Your task to perform on an android device: turn on wifi Image 0: 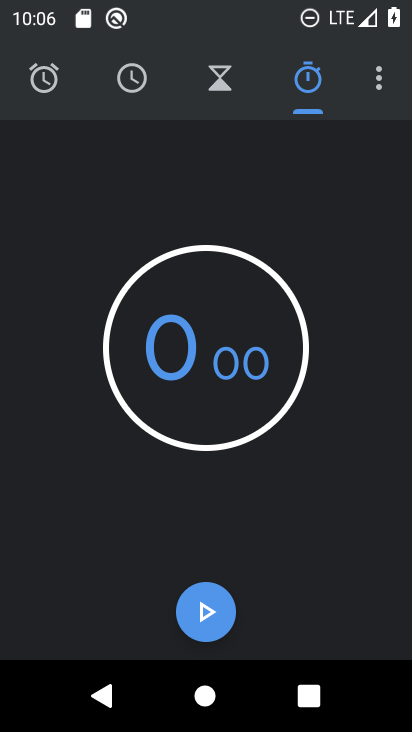
Step 0: press home button
Your task to perform on an android device: turn on wifi Image 1: 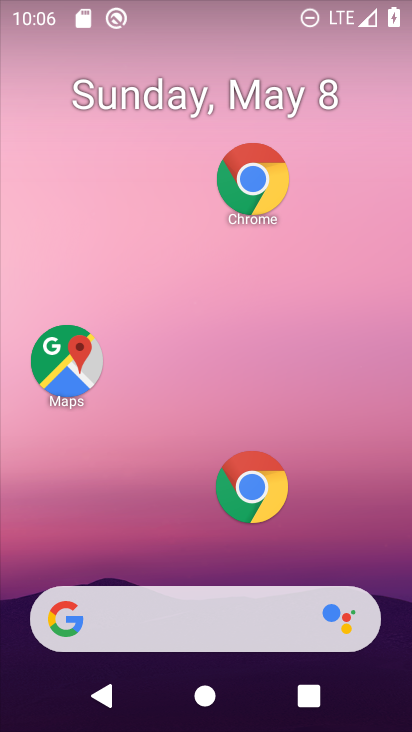
Step 1: drag from (164, 523) to (197, 25)
Your task to perform on an android device: turn on wifi Image 2: 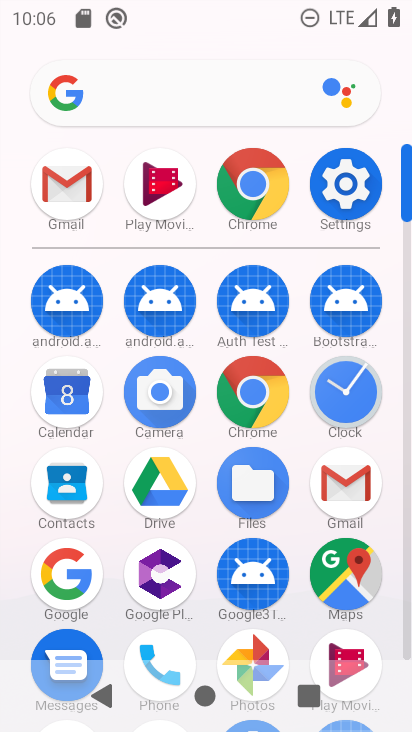
Step 2: click (358, 189)
Your task to perform on an android device: turn on wifi Image 3: 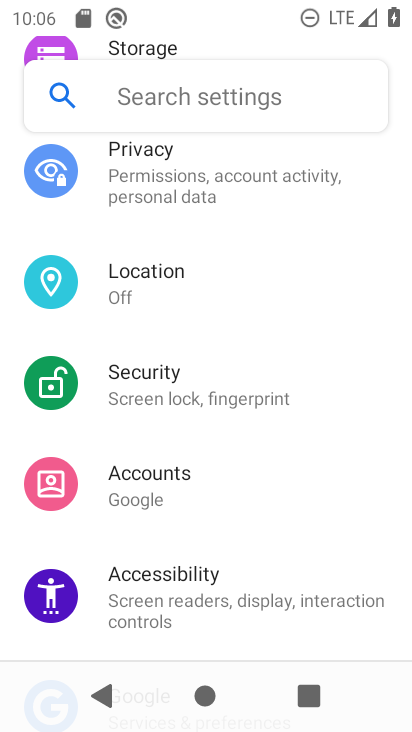
Step 3: drag from (221, 257) to (195, 604)
Your task to perform on an android device: turn on wifi Image 4: 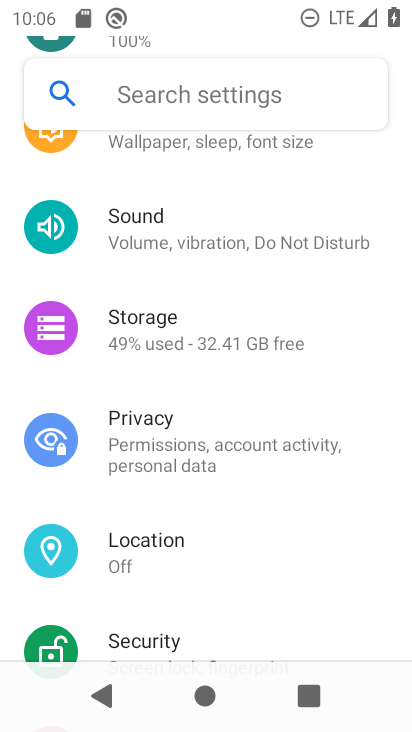
Step 4: drag from (244, 208) to (284, 710)
Your task to perform on an android device: turn on wifi Image 5: 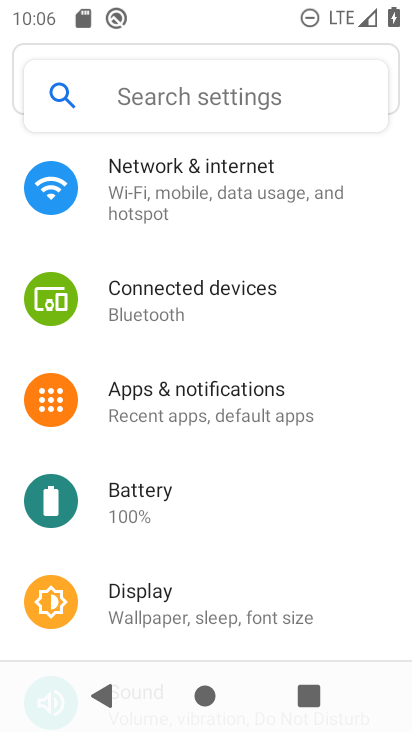
Step 5: click (248, 179)
Your task to perform on an android device: turn on wifi Image 6: 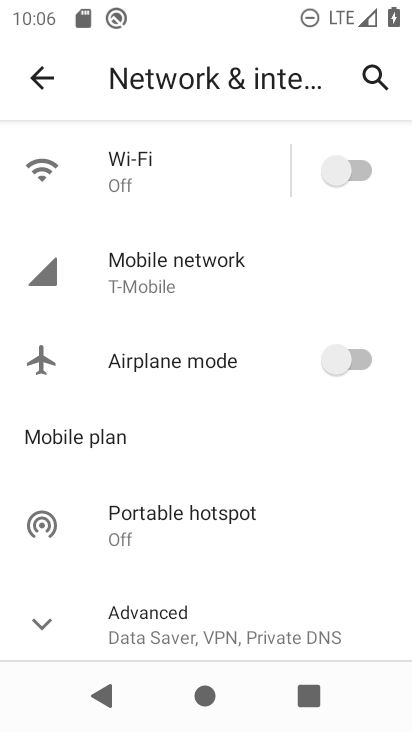
Step 6: click (361, 160)
Your task to perform on an android device: turn on wifi Image 7: 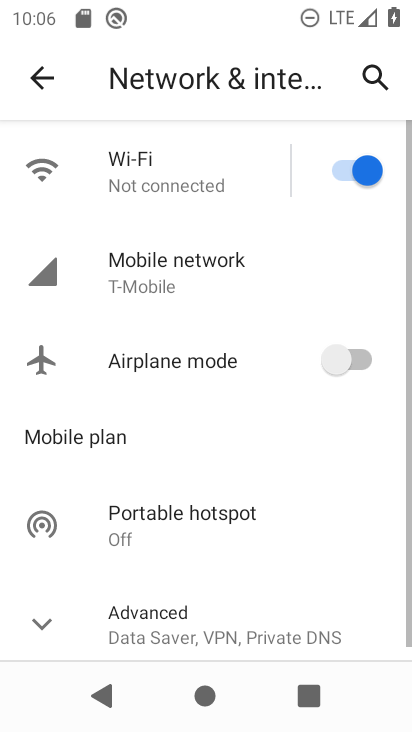
Step 7: task complete